Your task to perform on an android device: Open location settings Image 0: 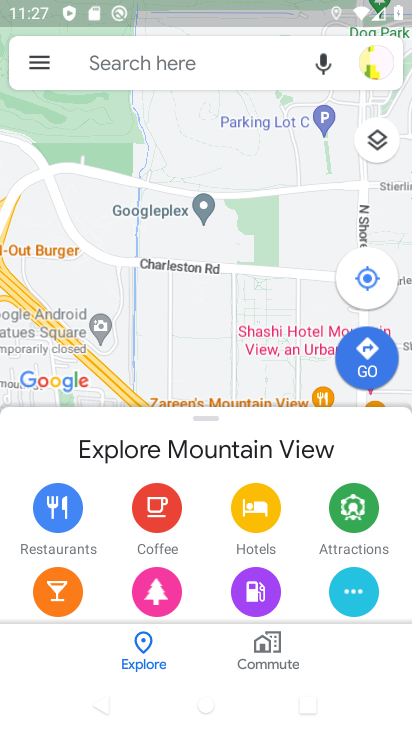
Step 0: press home button
Your task to perform on an android device: Open location settings Image 1: 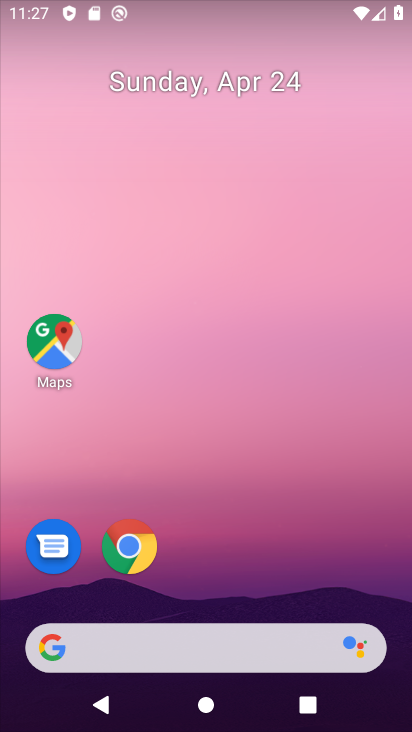
Step 1: drag from (207, 584) to (228, 153)
Your task to perform on an android device: Open location settings Image 2: 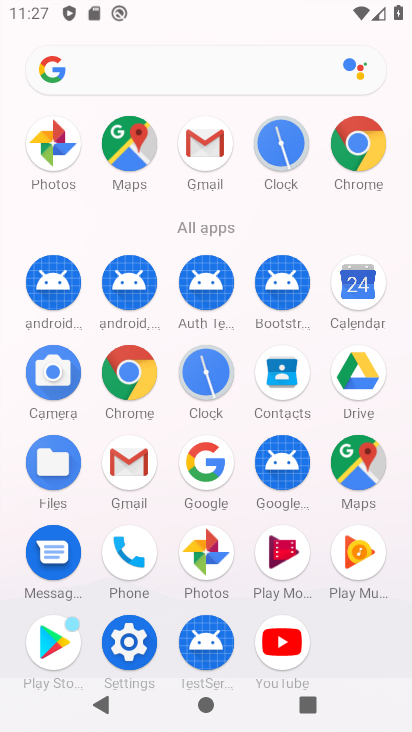
Step 2: click (130, 667)
Your task to perform on an android device: Open location settings Image 3: 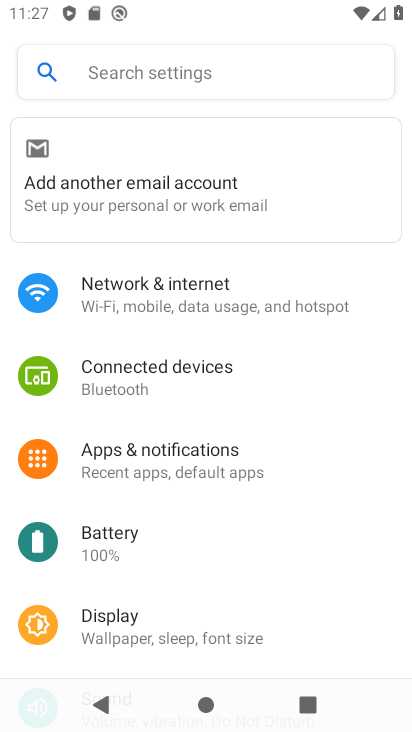
Step 3: drag from (197, 595) to (235, 305)
Your task to perform on an android device: Open location settings Image 4: 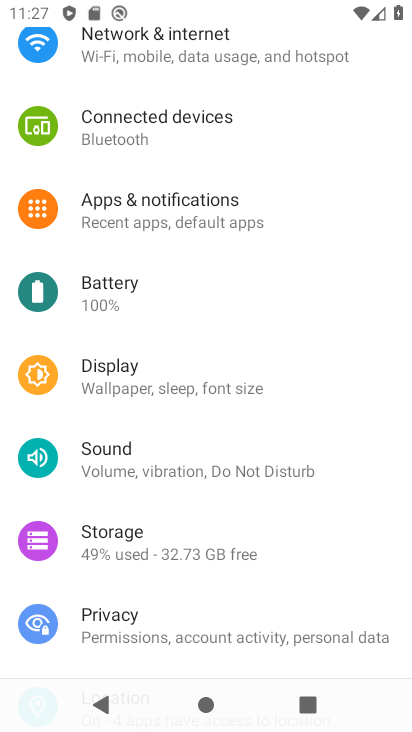
Step 4: drag from (170, 482) to (197, 224)
Your task to perform on an android device: Open location settings Image 5: 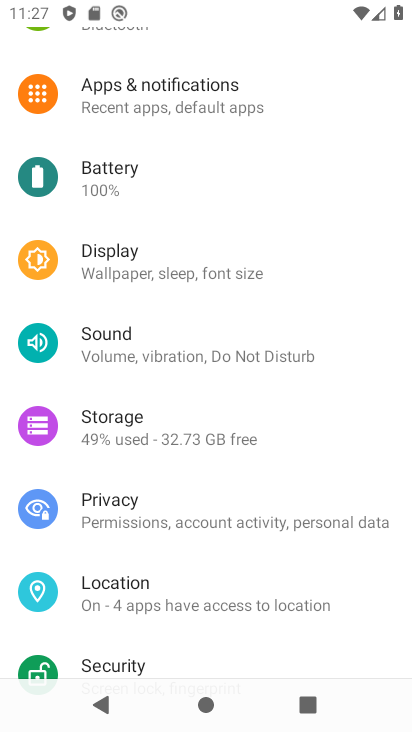
Step 5: click (198, 599)
Your task to perform on an android device: Open location settings Image 6: 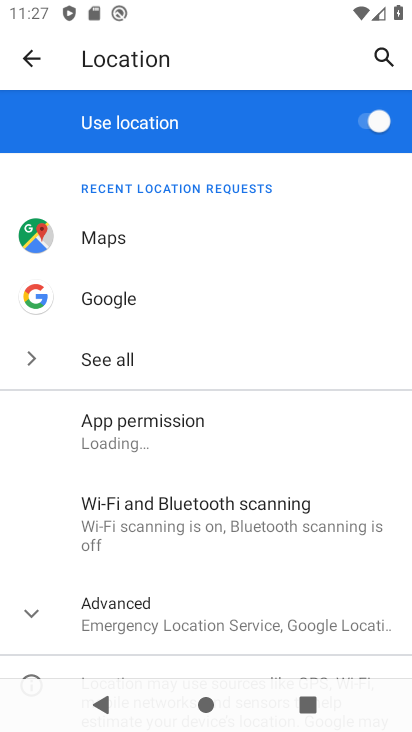
Step 6: task complete